Your task to perform on an android device: clear all cookies in the chrome app Image 0: 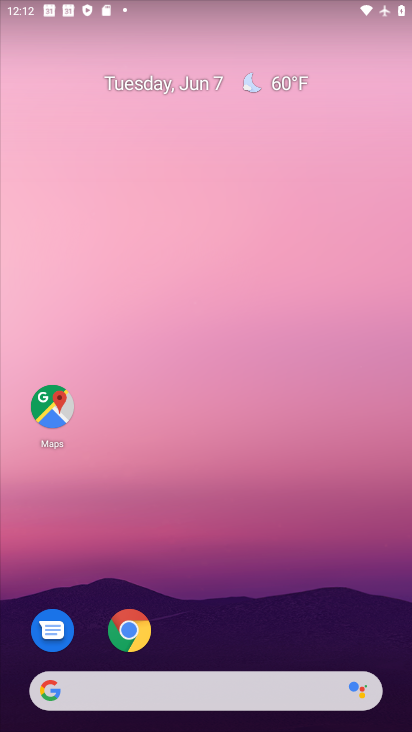
Step 0: drag from (388, 632) to (269, 71)
Your task to perform on an android device: clear all cookies in the chrome app Image 1: 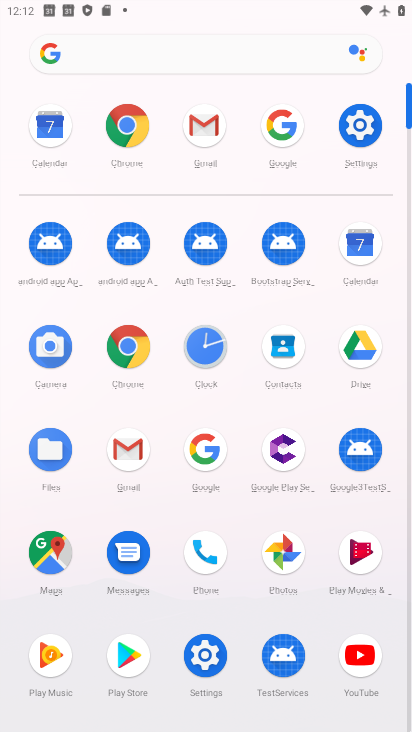
Step 1: click (132, 140)
Your task to perform on an android device: clear all cookies in the chrome app Image 2: 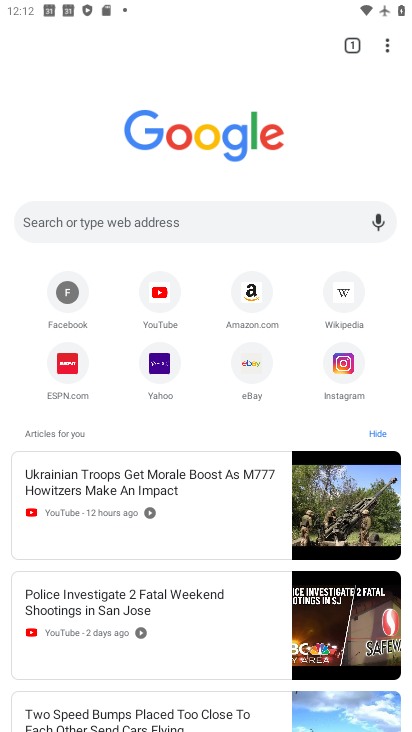
Step 2: click (391, 41)
Your task to perform on an android device: clear all cookies in the chrome app Image 3: 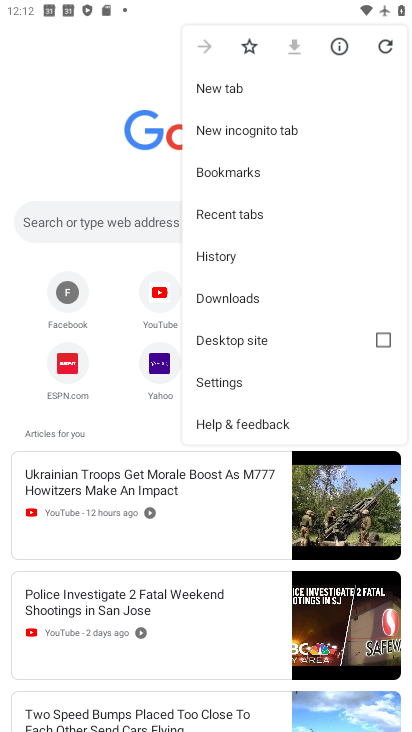
Step 3: click (261, 264)
Your task to perform on an android device: clear all cookies in the chrome app Image 4: 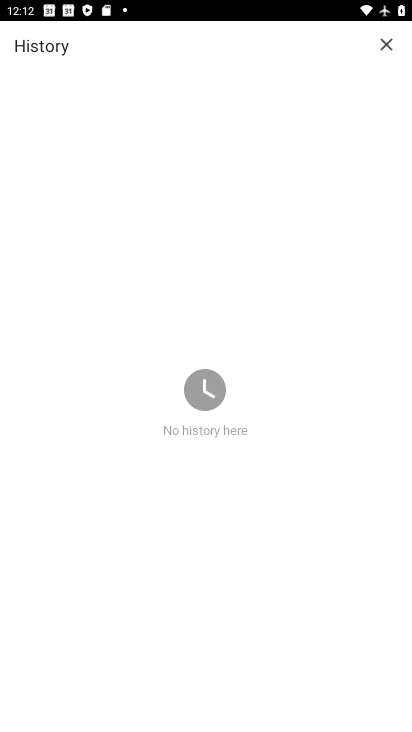
Step 4: task complete